Your task to perform on an android device: set default search engine in the chrome app Image 0: 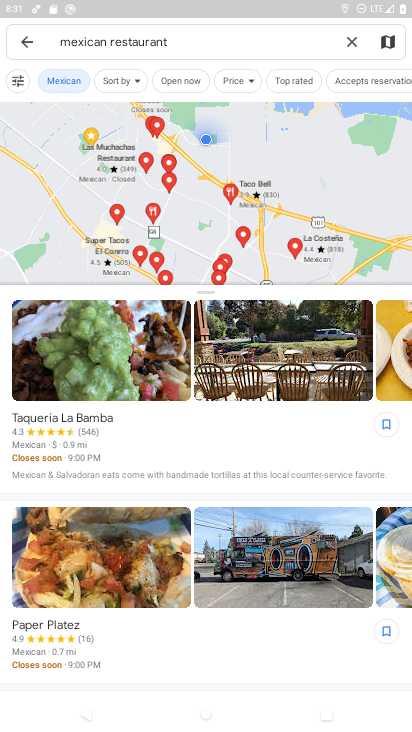
Step 0: press home button
Your task to perform on an android device: set default search engine in the chrome app Image 1: 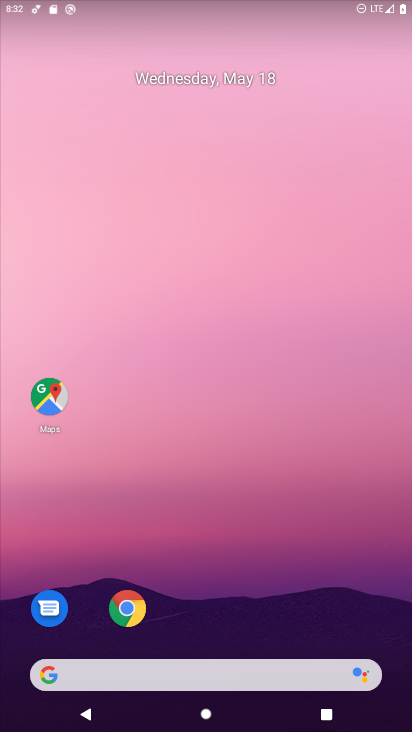
Step 1: click (135, 618)
Your task to perform on an android device: set default search engine in the chrome app Image 2: 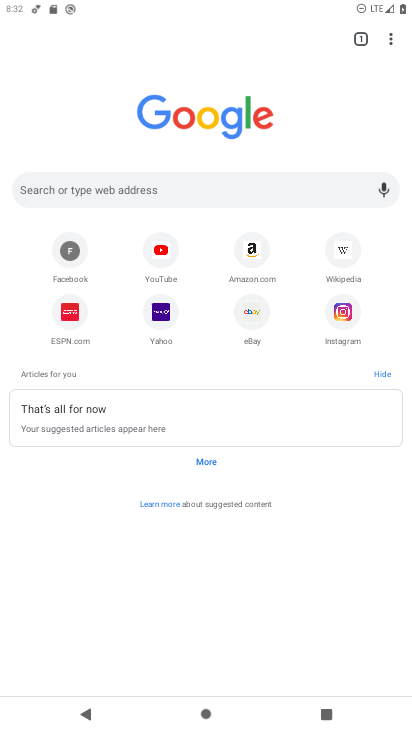
Step 2: click (394, 43)
Your task to perform on an android device: set default search engine in the chrome app Image 3: 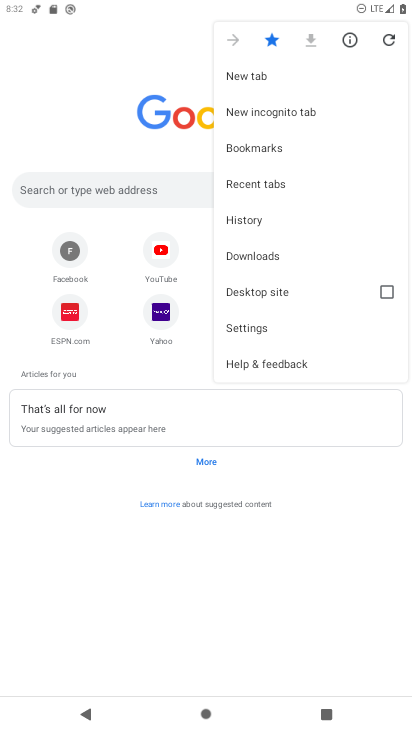
Step 3: click (269, 326)
Your task to perform on an android device: set default search engine in the chrome app Image 4: 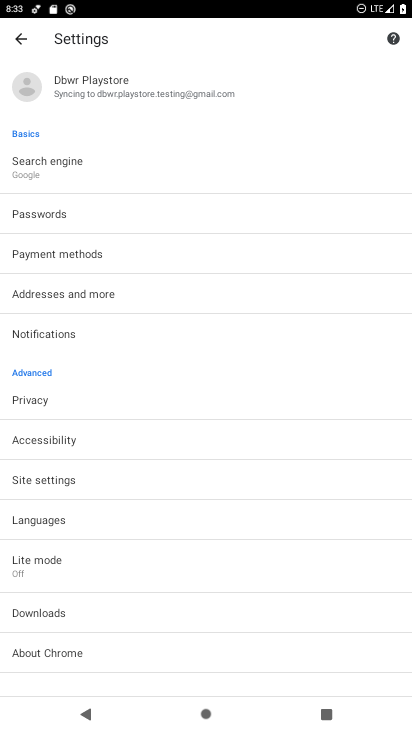
Step 4: click (55, 176)
Your task to perform on an android device: set default search engine in the chrome app Image 5: 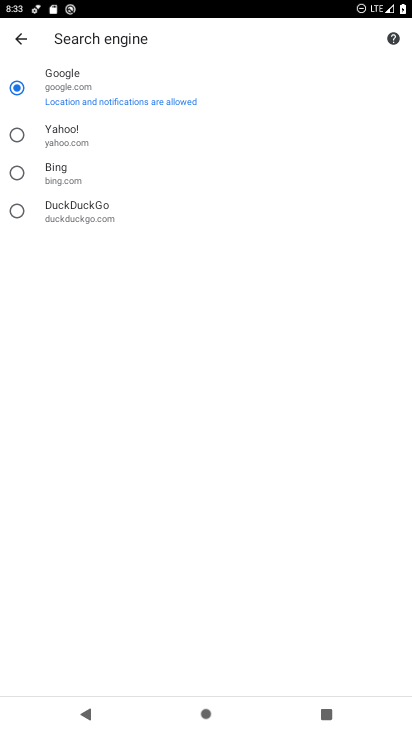
Step 5: click (54, 214)
Your task to perform on an android device: set default search engine in the chrome app Image 6: 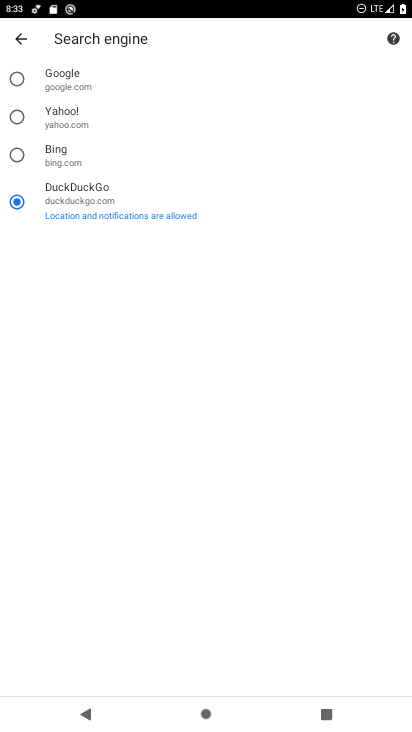
Step 6: task complete